Your task to perform on an android device: empty trash in the gmail app Image 0: 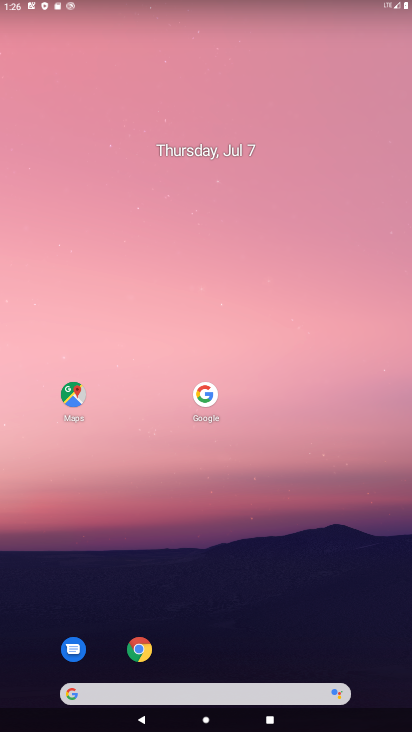
Step 0: press home button
Your task to perform on an android device: empty trash in the gmail app Image 1: 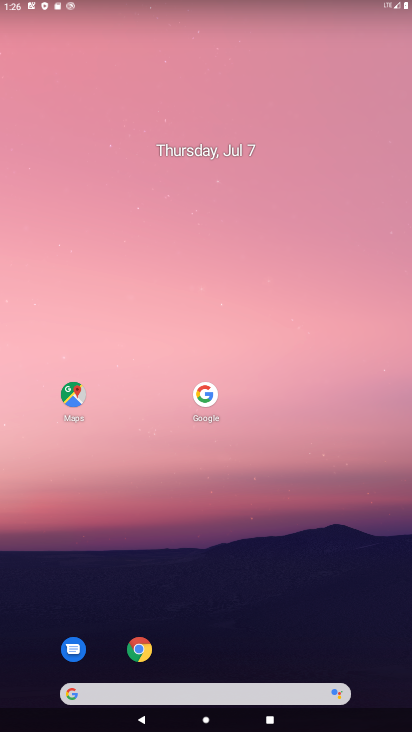
Step 1: drag from (302, 506) to (404, 234)
Your task to perform on an android device: empty trash in the gmail app Image 2: 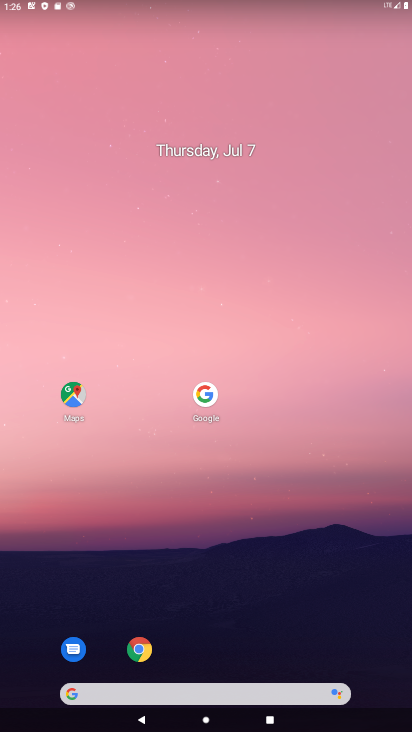
Step 2: drag from (258, 524) to (411, 219)
Your task to perform on an android device: empty trash in the gmail app Image 3: 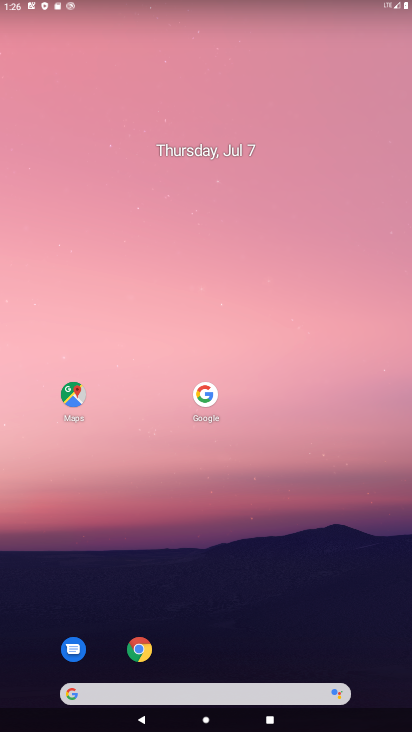
Step 3: drag from (268, 530) to (337, 20)
Your task to perform on an android device: empty trash in the gmail app Image 4: 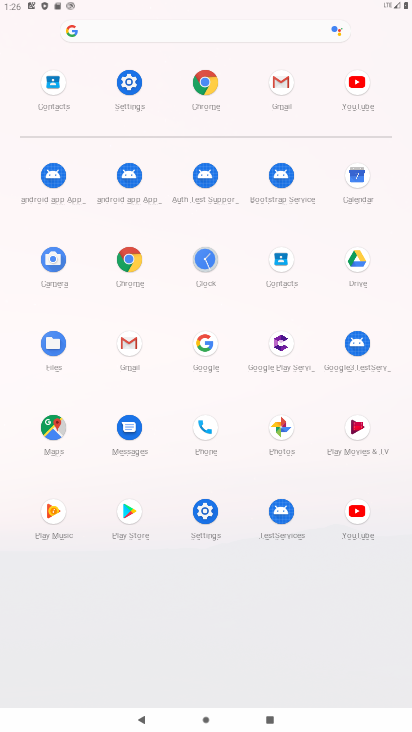
Step 4: click (279, 84)
Your task to perform on an android device: empty trash in the gmail app Image 5: 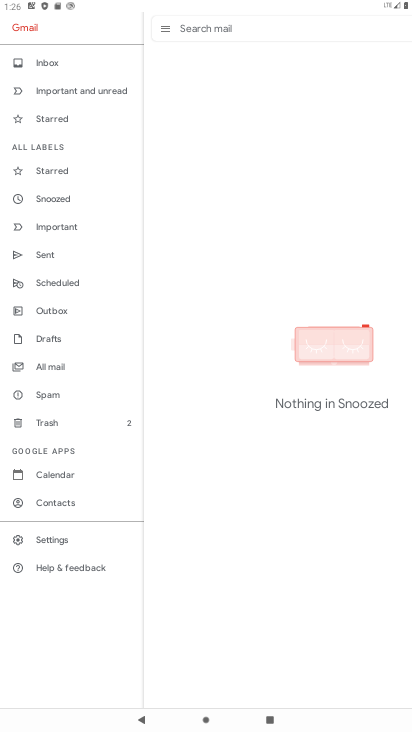
Step 5: click (53, 417)
Your task to perform on an android device: empty trash in the gmail app Image 6: 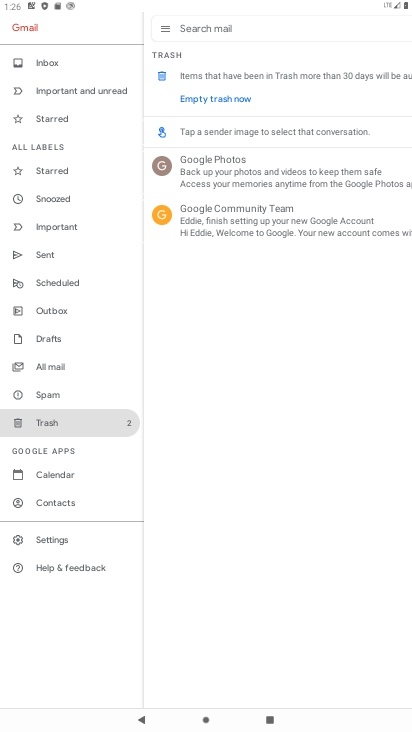
Step 6: click (233, 97)
Your task to perform on an android device: empty trash in the gmail app Image 7: 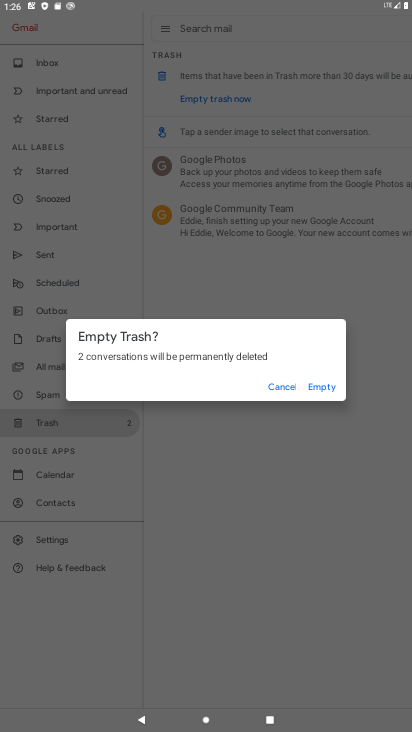
Step 7: click (318, 384)
Your task to perform on an android device: empty trash in the gmail app Image 8: 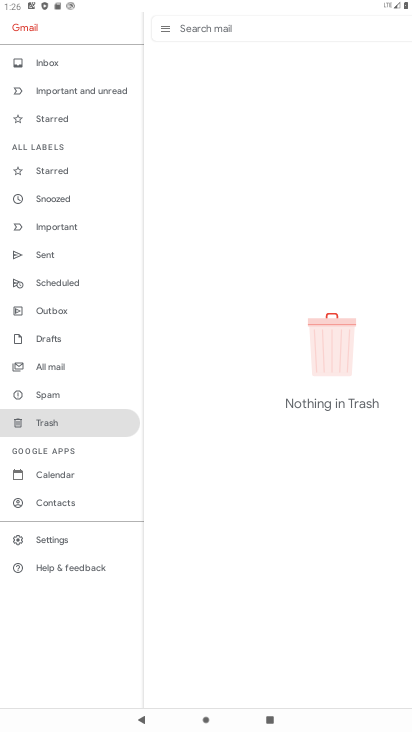
Step 8: task complete